Your task to perform on an android device: change alarm snooze length Image 0: 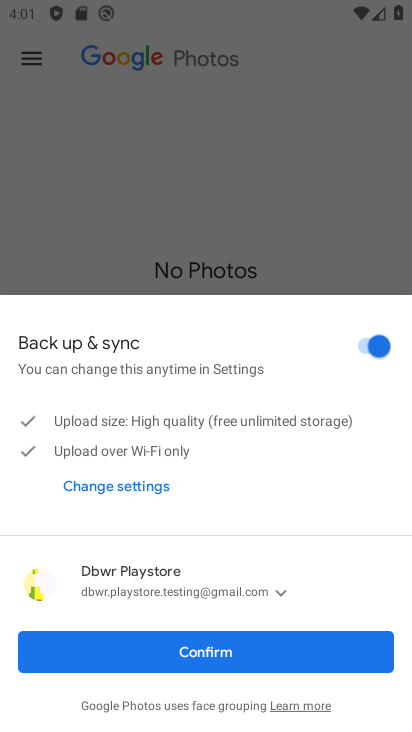
Step 0: press back button
Your task to perform on an android device: change alarm snooze length Image 1: 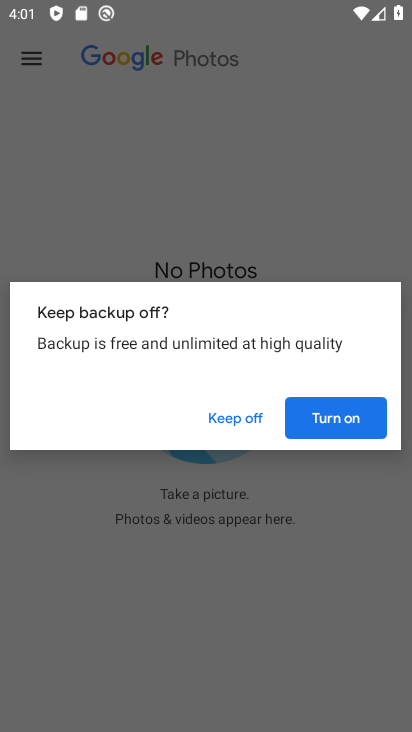
Step 1: press home button
Your task to perform on an android device: change alarm snooze length Image 2: 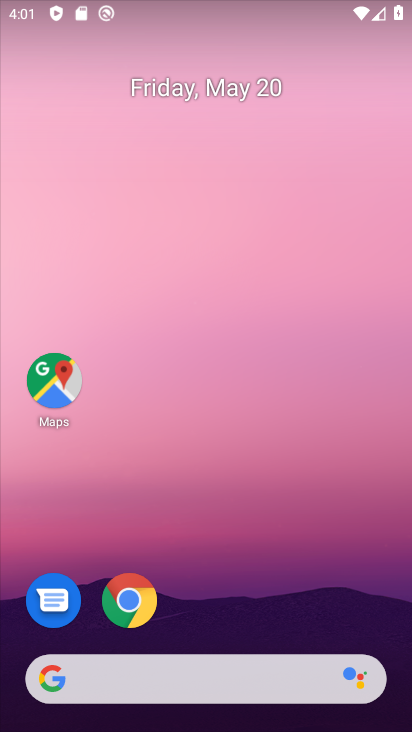
Step 2: drag from (203, 585) to (363, 55)
Your task to perform on an android device: change alarm snooze length Image 3: 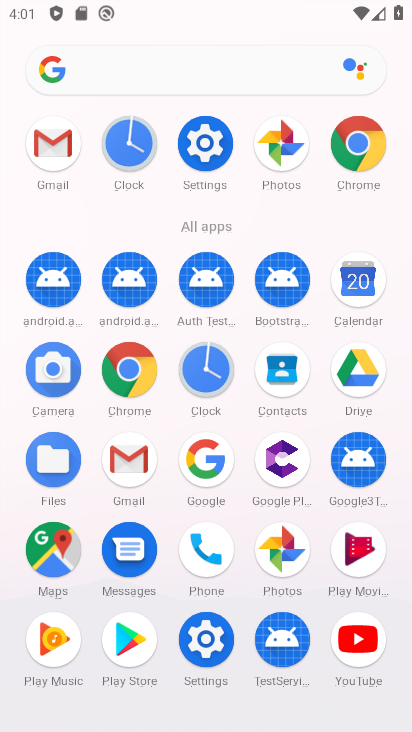
Step 3: click (204, 375)
Your task to perform on an android device: change alarm snooze length Image 4: 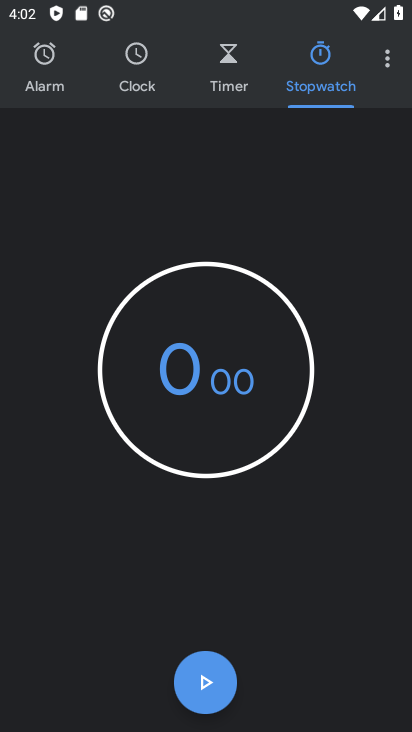
Step 4: click (385, 48)
Your task to perform on an android device: change alarm snooze length Image 5: 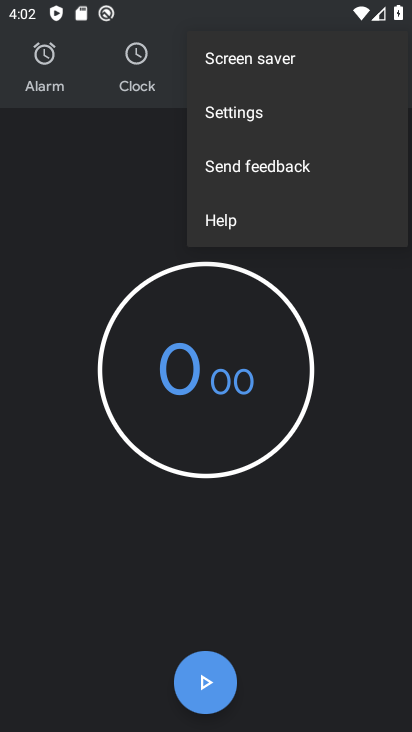
Step 5: click (294, 108)
Your task to perform on an android device: change alarm snooze length Image 6: 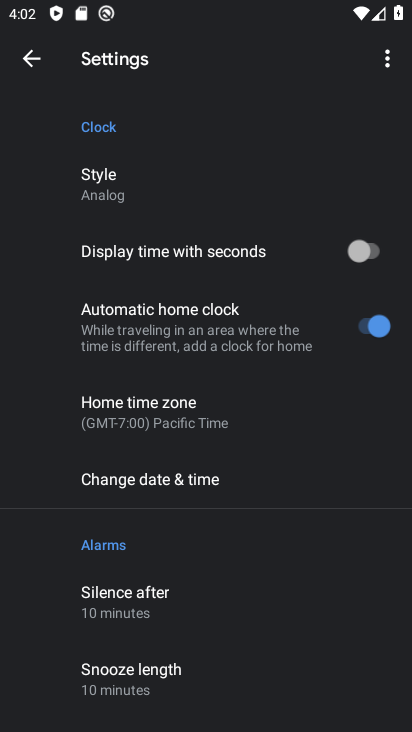
Step 6: click (141, 676)
Your task to perform on an android device: change alarm snooze length Image 7: 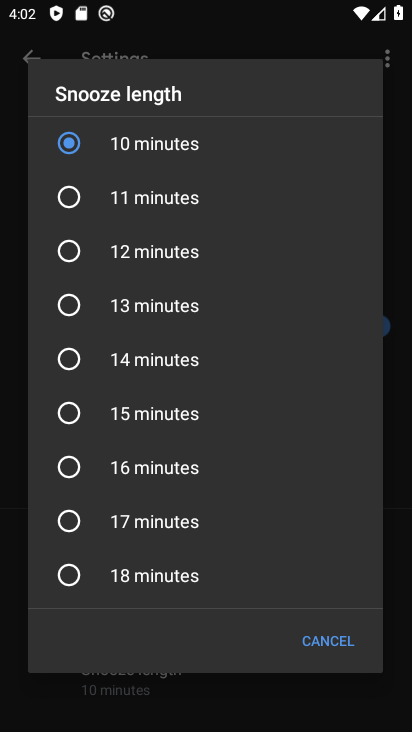
Step 7: click (76, 212)
Your task to perform on an android device: change alarm snooze length Image 8: 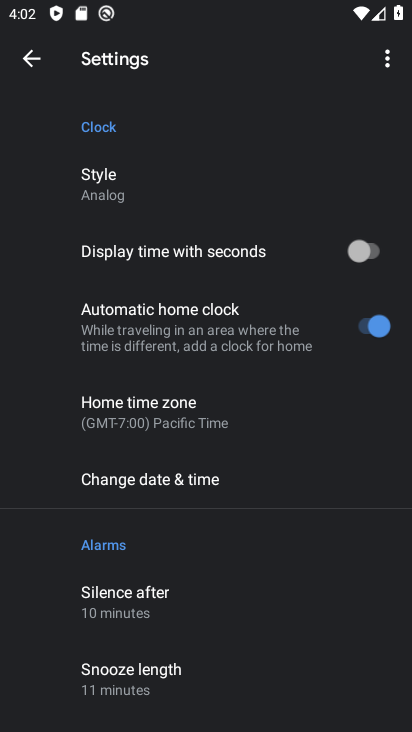
Step 8: task complete